Your task to perform on an android device: clear history in the chrome app Image 0: 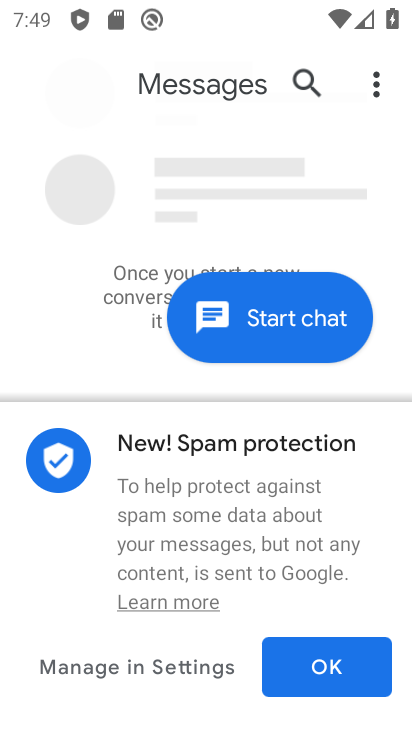
Step 0: press home button
Your task to perform on an android device: clear history in the chrome app Image 1: 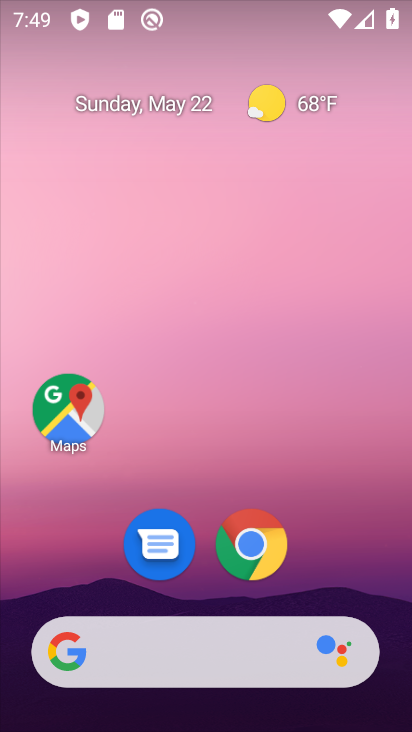
Step 1: click (255, 549)
Your task to perform on an android device: clear history in the chrome app Image 2: 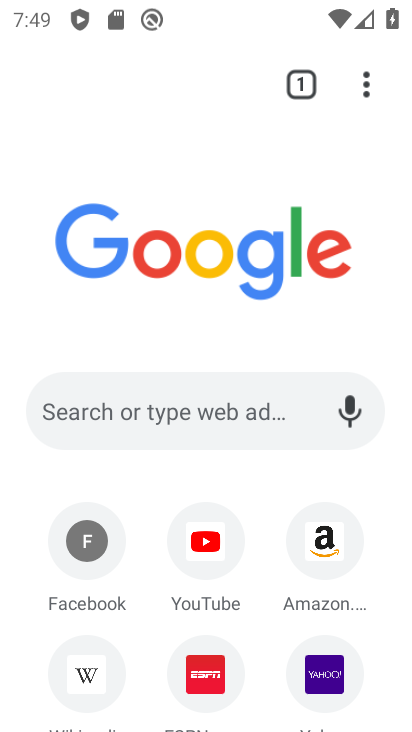
Step 2: click (357, 80)
Your task to perform on an android device: clear history in the chrome app Image 3: 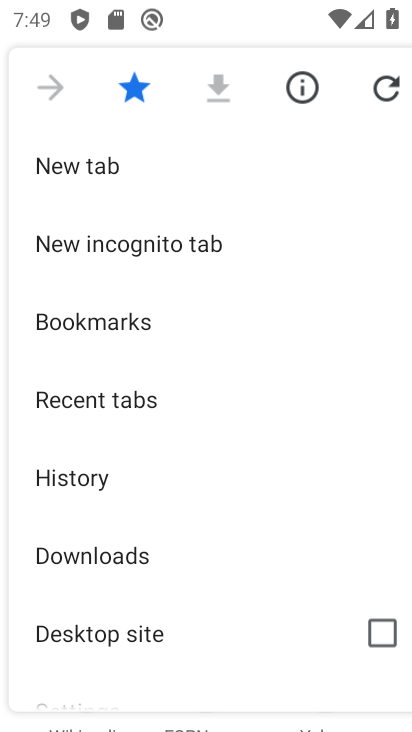
Step 3: click (79, 476)
Your task to perform on an android device: clear history in the chrome app Image 4: 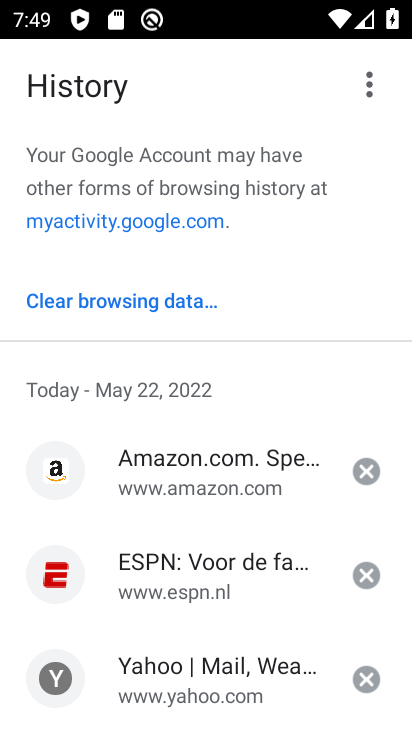
Step 4: click (163, 293)
Your task to perform on an android device: clear history in the chrome app Image 5: 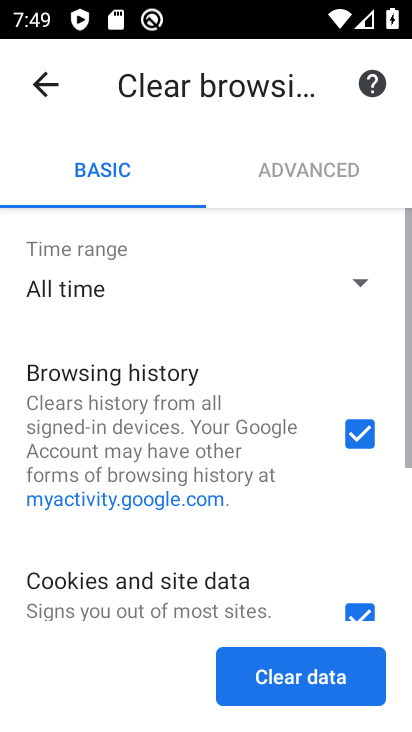
Step 5: click (328, 687)
Your task to perform on an android device: clear history in the chrome app Image 6: 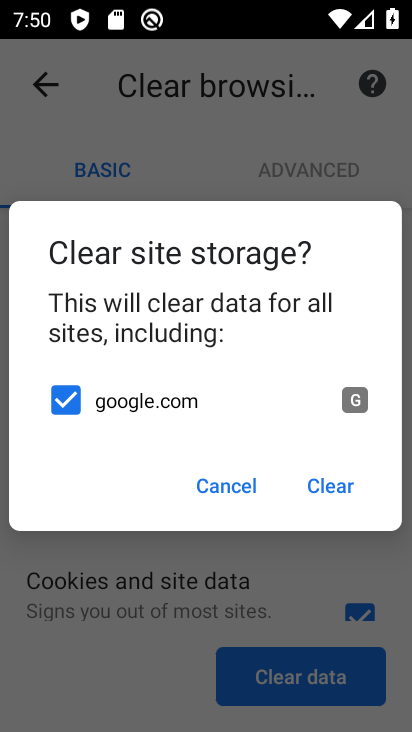
Step 6: click (327, 480)
Your task to perform on an android device: clear history in the chrome app Image 7: 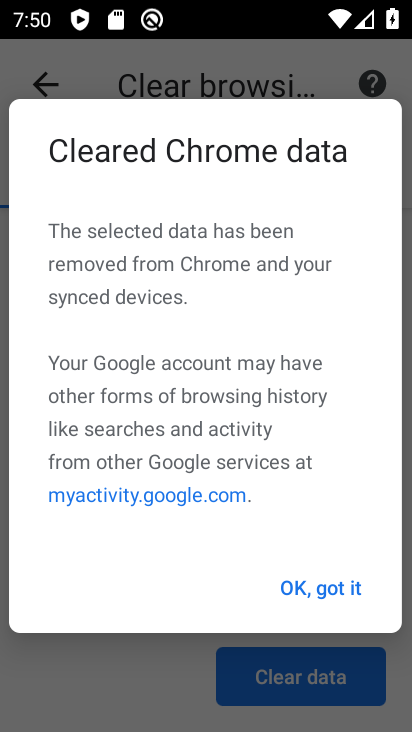
Step 7: click (325, 585)
Your task to perform on an android device: clear history in the chrome app Image 8: 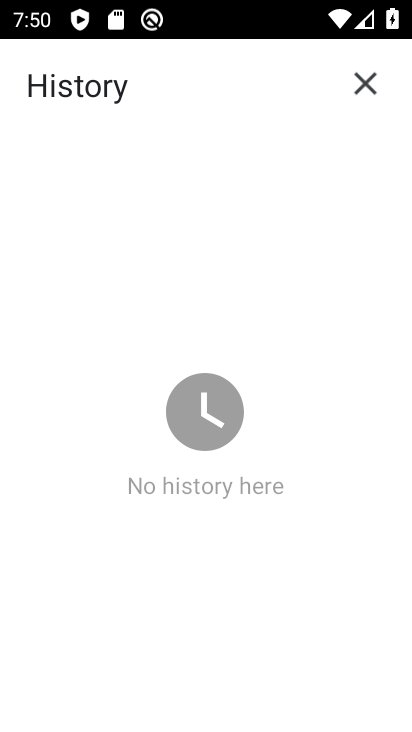
Step 8: task complete